Your task to perform on an android device: stop showing notifications on the lock screen Image 0: 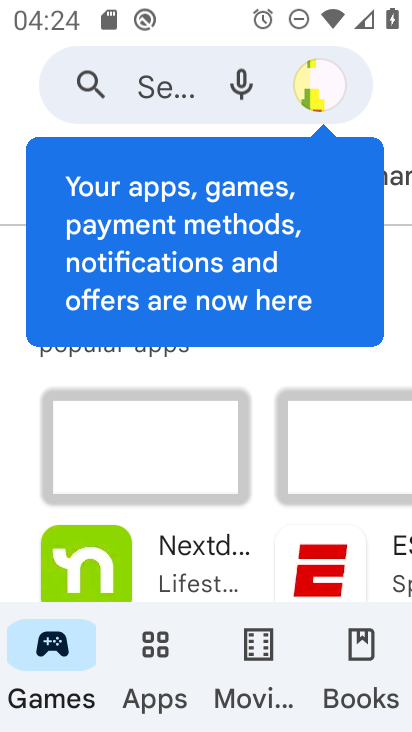
Step 0: press home button
Your task to perform on an android device: stop showing notifications on the lock screen Image 1: 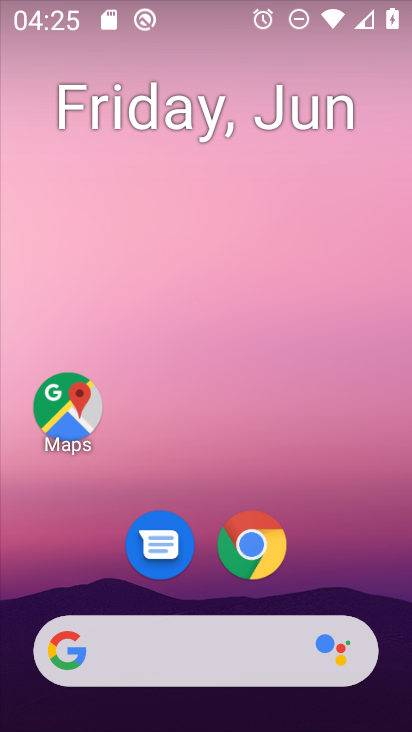
Step 1: drag from (348, 574) to (327, 57)
Your task to perform on an android device: stop showing notifications on the lock screen Image 2: 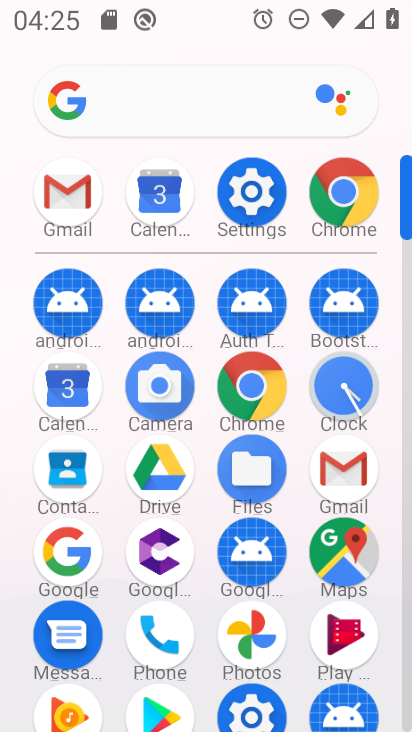
Step 2: click (262, 207)
Your task to perform on an android device: stop showing notifications on the lock screen Image 3: 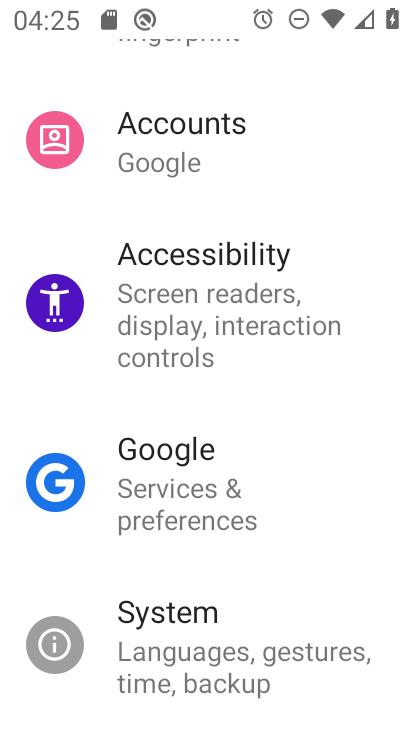
Step 3: drag from (295, 336) to (323, 630)
Your task to perform on an android device: stop showing notifications on the lock screen Image 4: 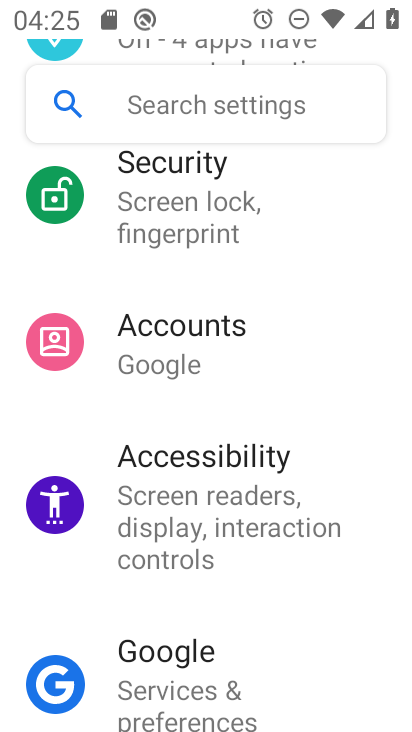
Step 4: drag from (241, 309) to (250, 713)
Your task to perform on an android device: stop showing notifications on the lock screen Image 5: 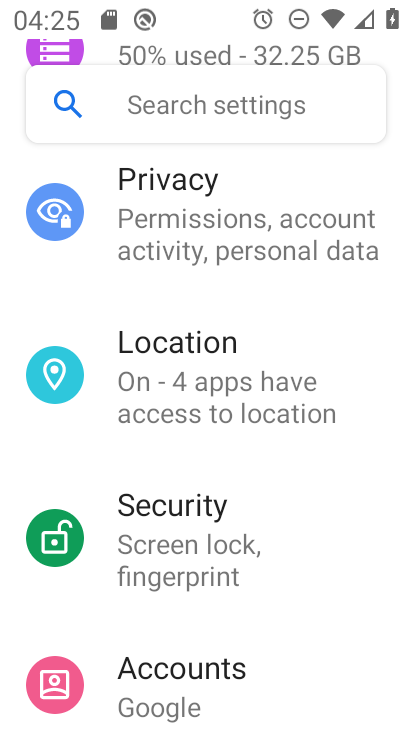
Step 5: drag from (293, 326) to (291, 716)
Your task to perform on an android device: stop showing notifications on the lock screen Image 6: 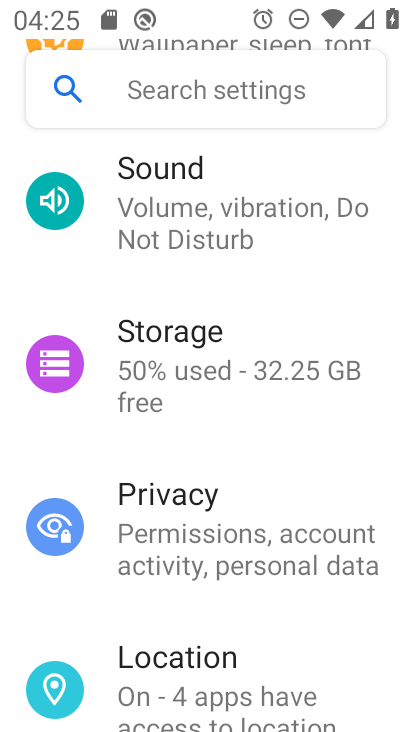
Step 6: drag from (296, 313) to (283, 702)
Your task to perform on an android device: stop showing notifications on the lock screen Image 7: 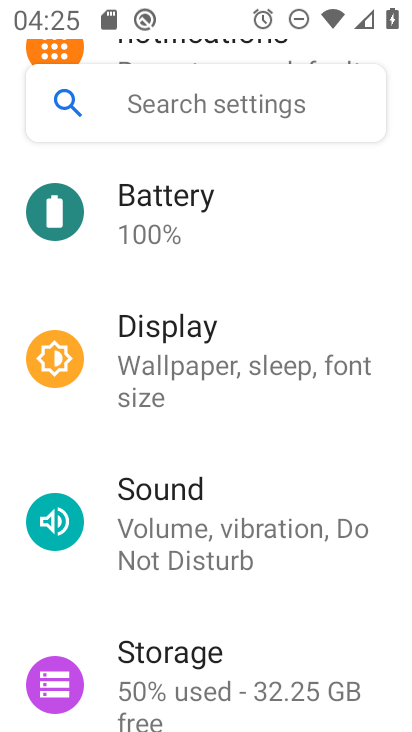
Step 7: drag from (252, 334) to (250, 728)
Your task to perform on an android device: stop showing notifications on the lock screen Image 8: 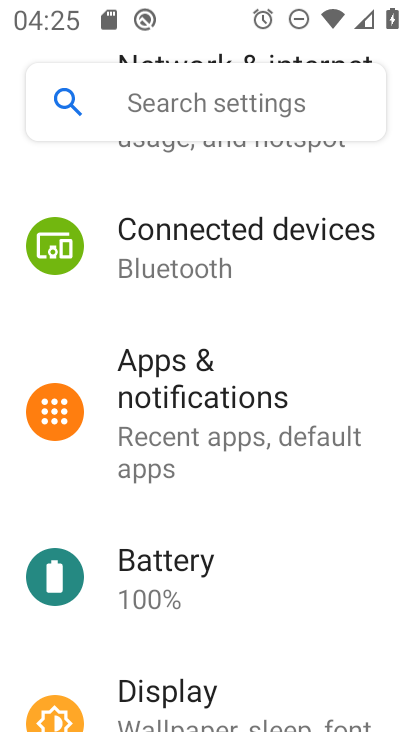
Step 8: click (215, 383)
Your task to perform on an android device: stop showing notifications on the lock screen Image 9: 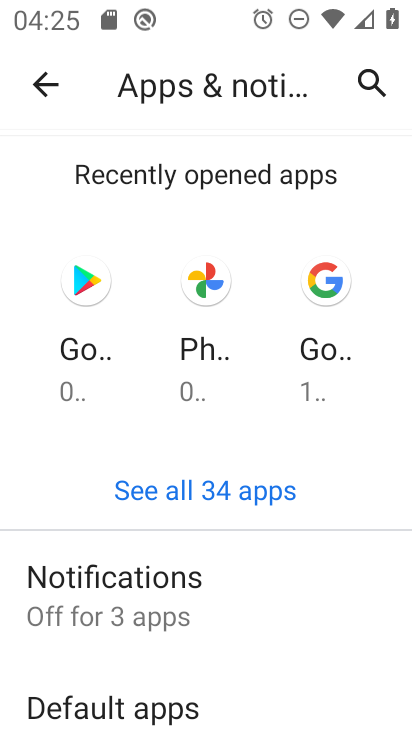
Step 9: click (198, 619)
Your task to perform on an android device: stop showing notifications on the lock screen Image 10: 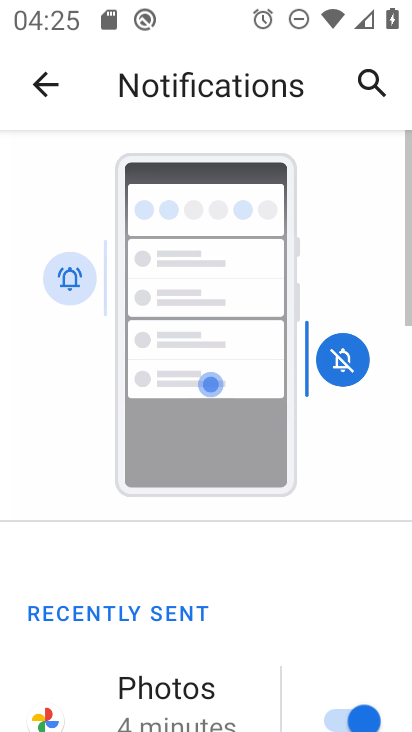
Step 10: drag from (161, 700) to (122, 172)
Your task to perform on an android device: stop showing notifications on the lock screen Image 11: 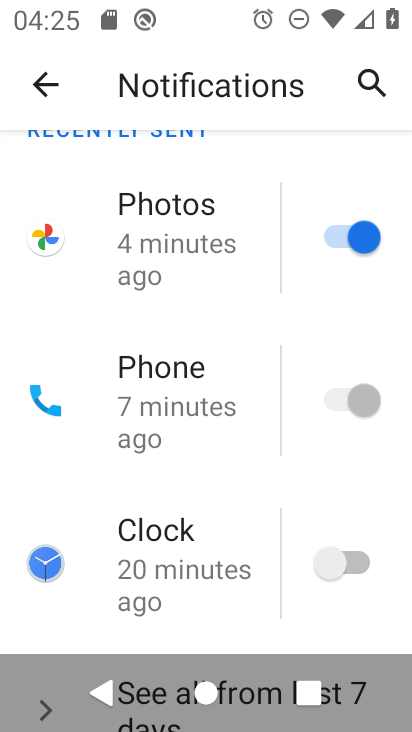
Step 11: drag from (152, 602) to (163, 8)
Your task to perform on an android device: stop showing notifications on the lock screen Image 12: 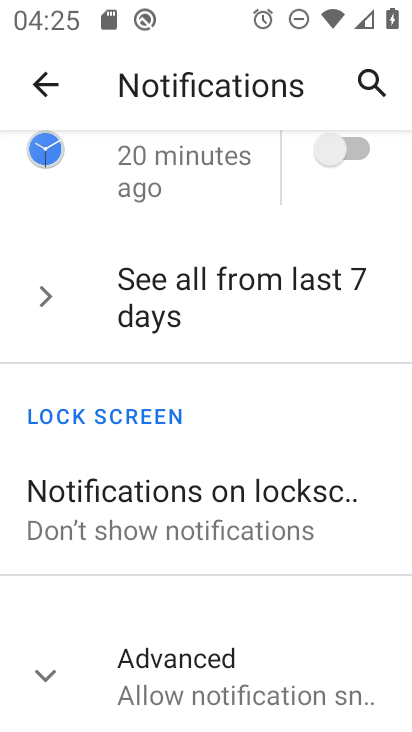
Step 12: click (196, 522)
Your task to perform on an android device: stop showing notifications on the lock screen Image 13: 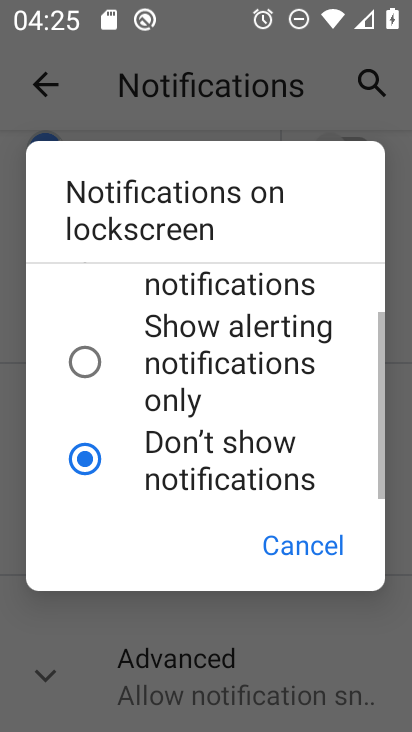
Step 13: click (211, 459)
Your task to perform on an android device: stop showing notifications on the lock screen Image 14: 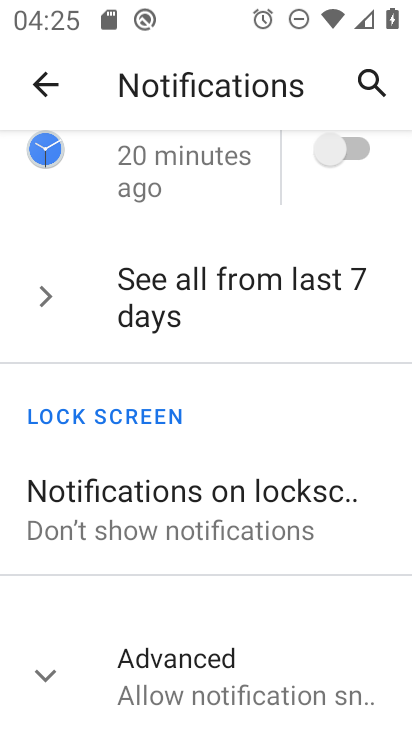
Step 14: task complete